Your task to perform on an android device: toggle airplane mode Image 0: 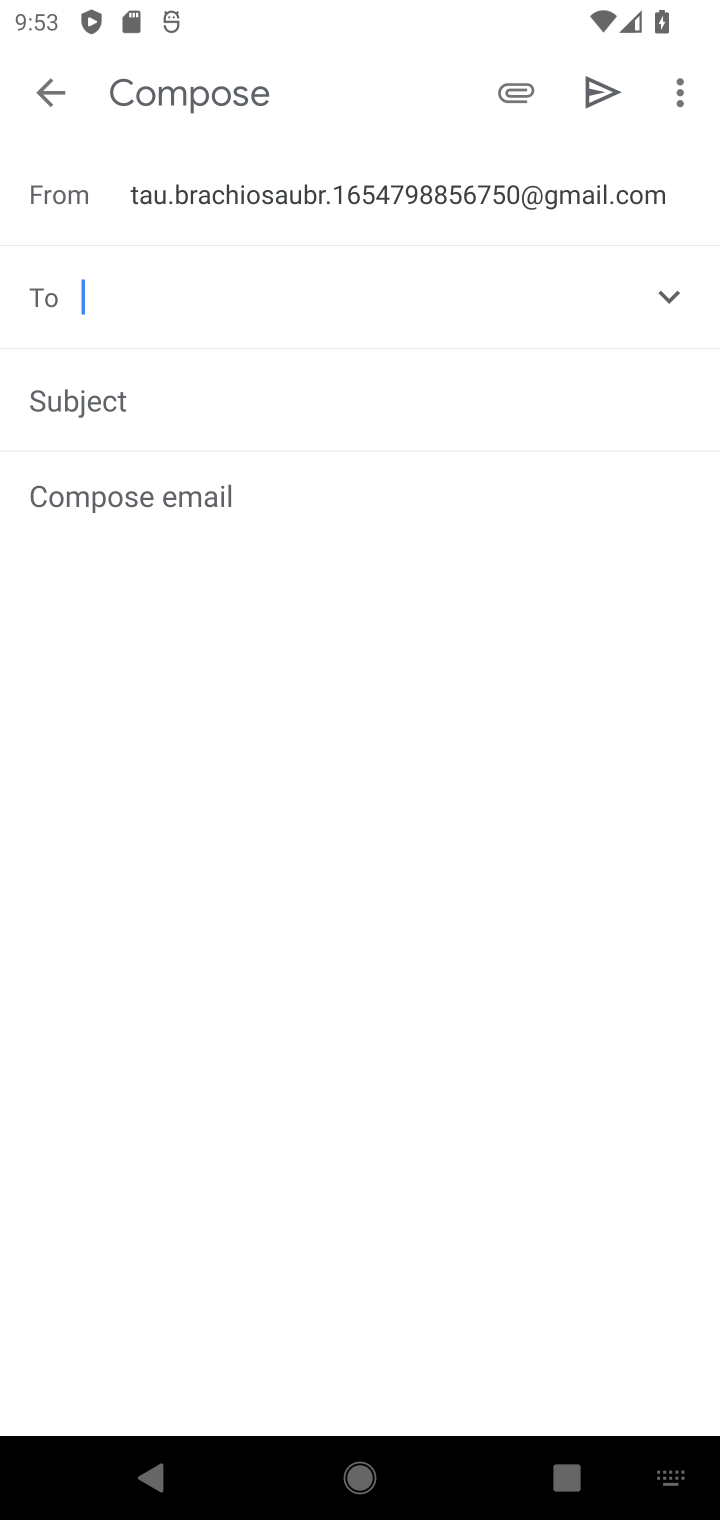
Step 0: press home button
Your task to perform on an android device: toggle airplane mode Image 1: 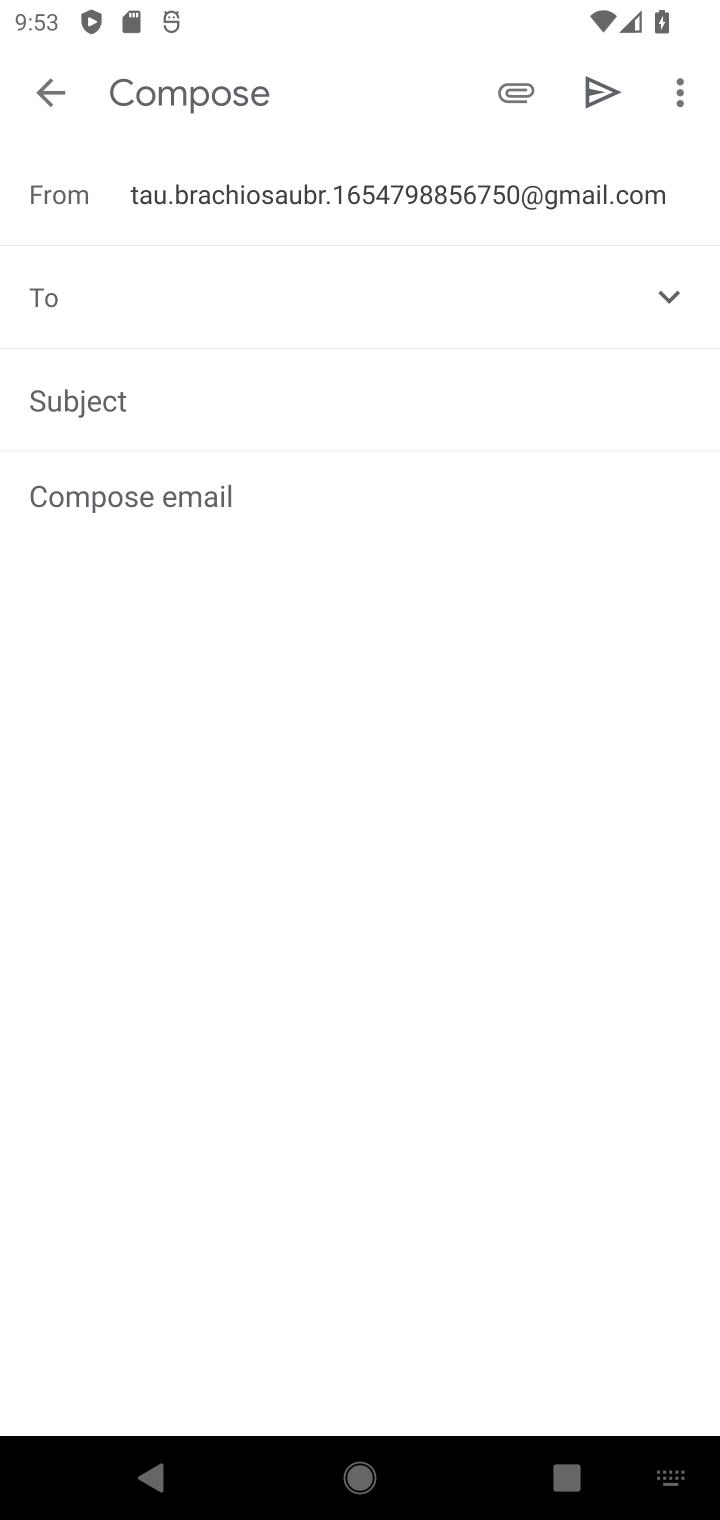
Step 1: press home button
Your task to perform on an android device: toggle airplane mode Image 2: 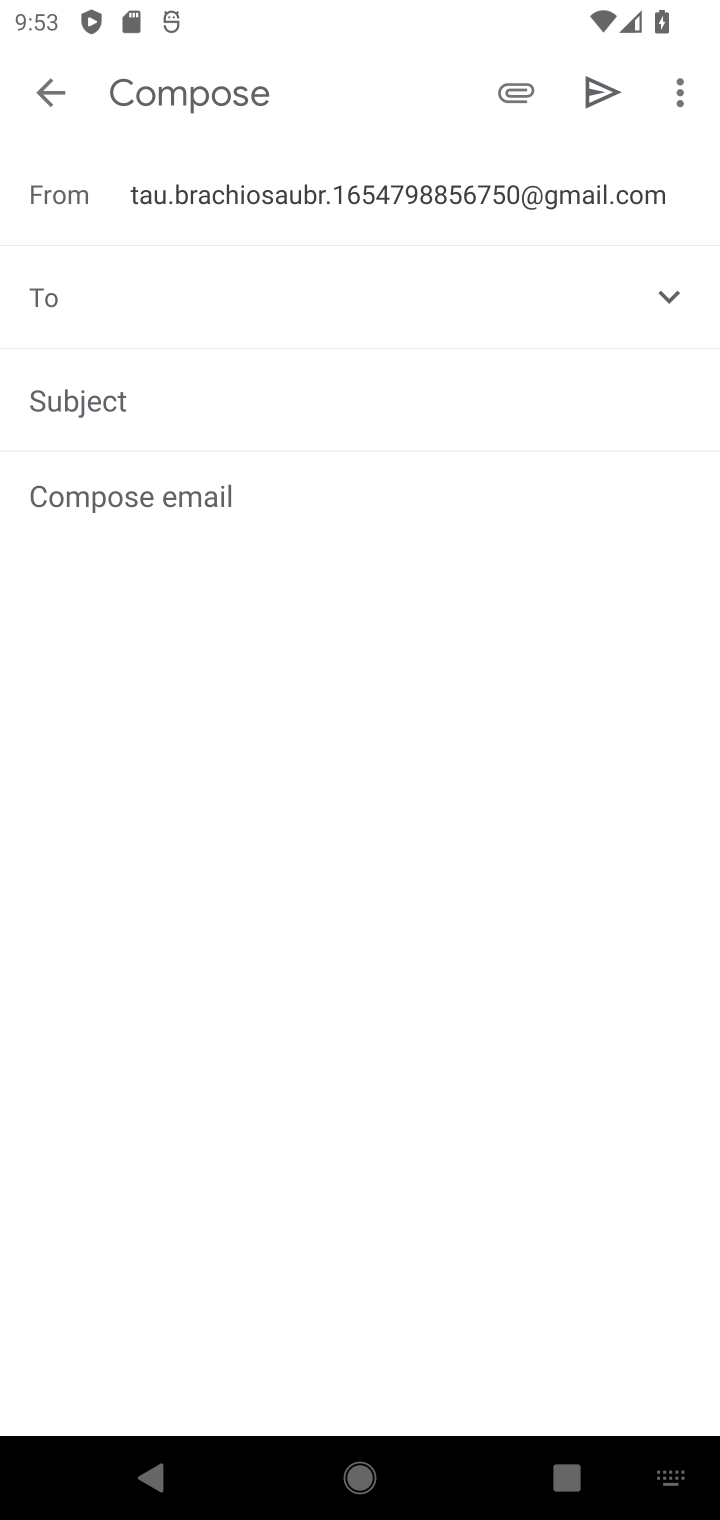
Step 2: click (536, 58)
Your task to perform on an android device: toggle airplane mode Image 3: 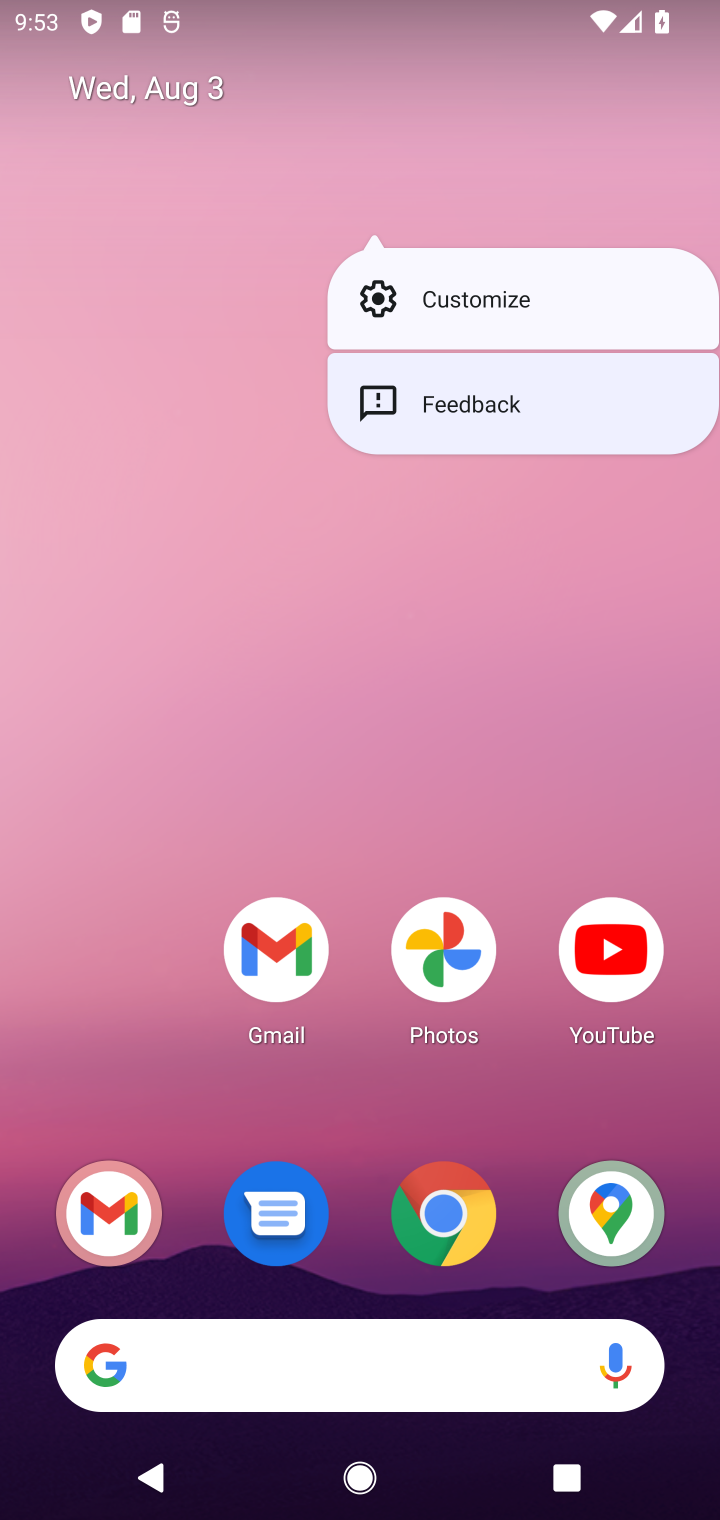
Step 3: drag from (432, 613) to (447, 472)
Your task to perform on an android device: toggle airplane mode Image 4: 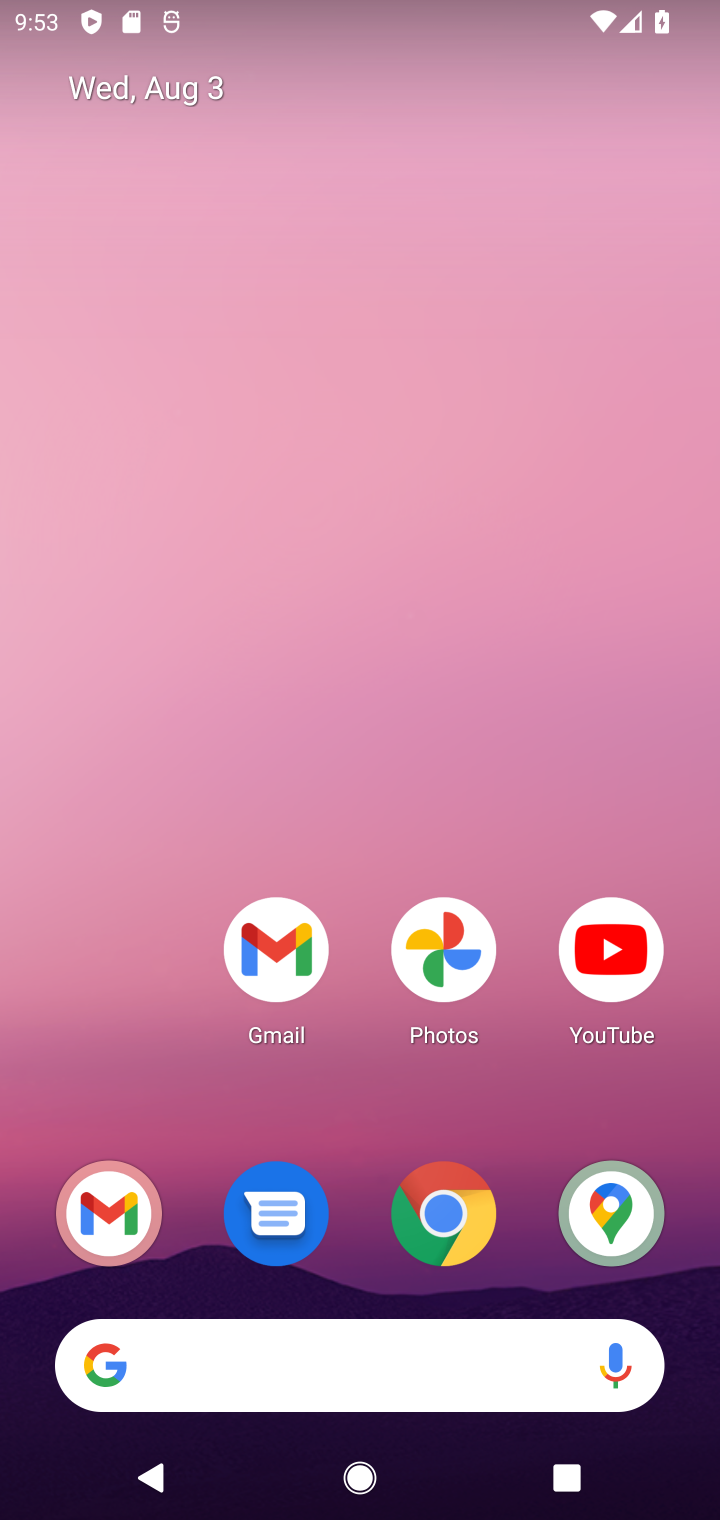
Step 4: drag from (382, 989) to (435, 577)
Your task to perform on an android device: toggle airplane mode Image 5: 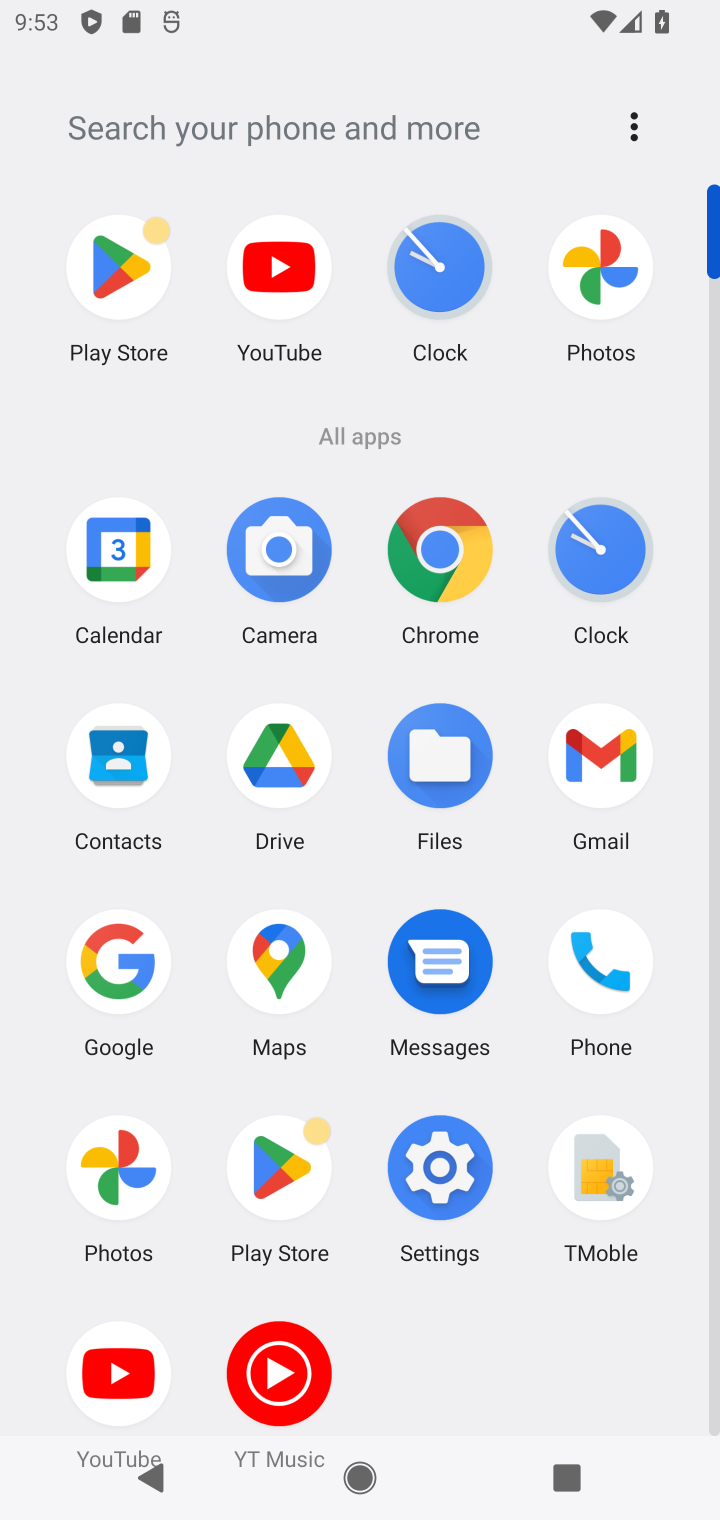
Step 5: click (441, 1185)
Your task to perform on an android device: toggle airplane mode Image 6: 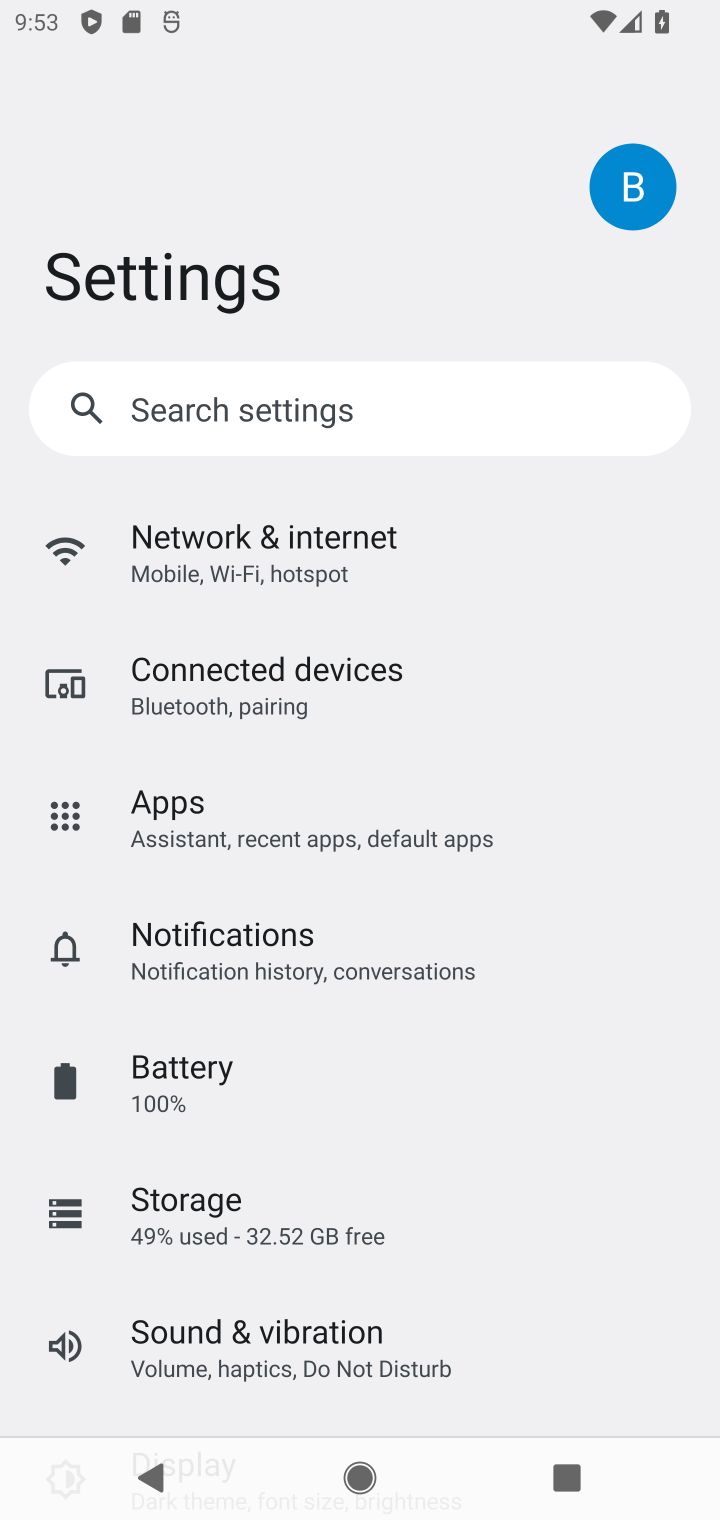
Step 6: click (335, 591)
Your task to perform on an android device: toggle airplane mode Image 7: 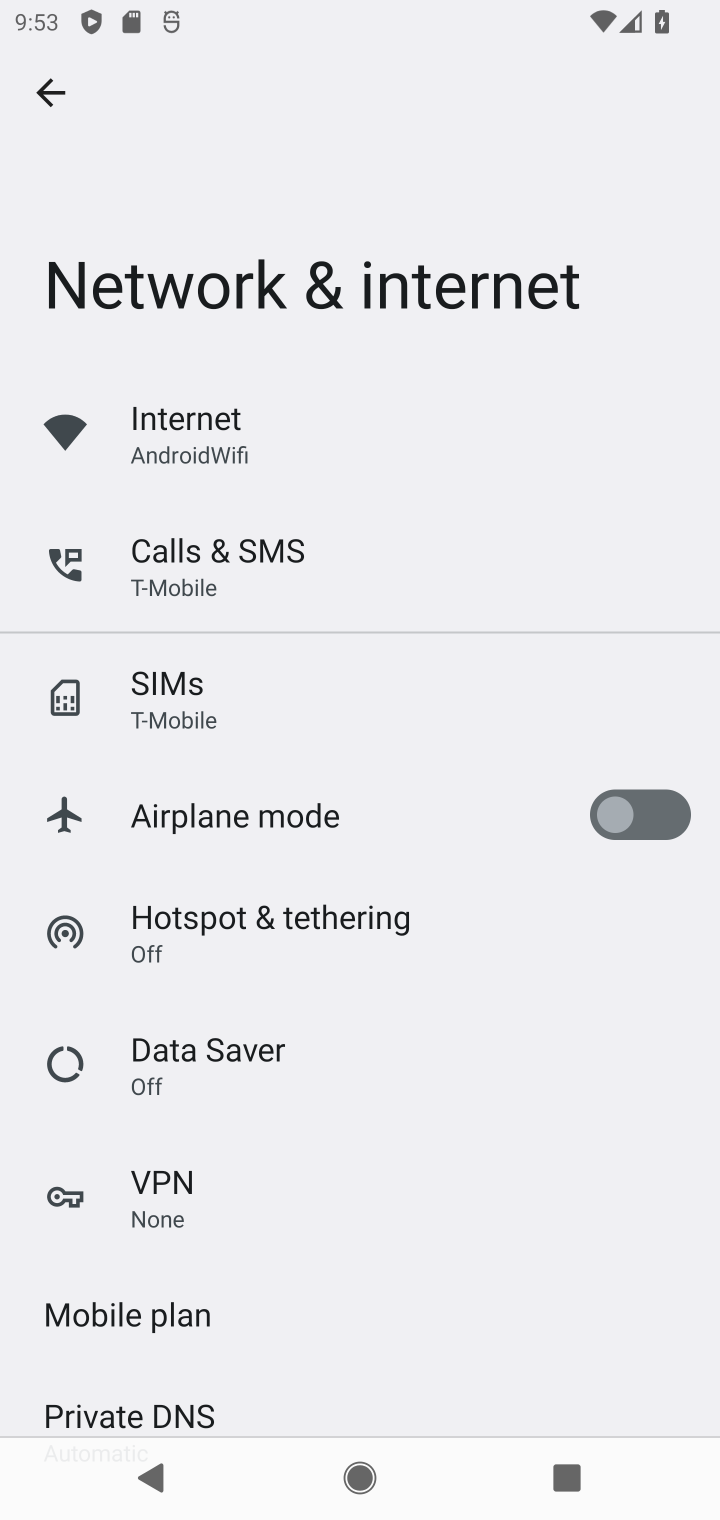
Step 7: drag from (208, 1118) to (333, 677)
Your task to perform on an android device: toggle airplane mode Image 8: 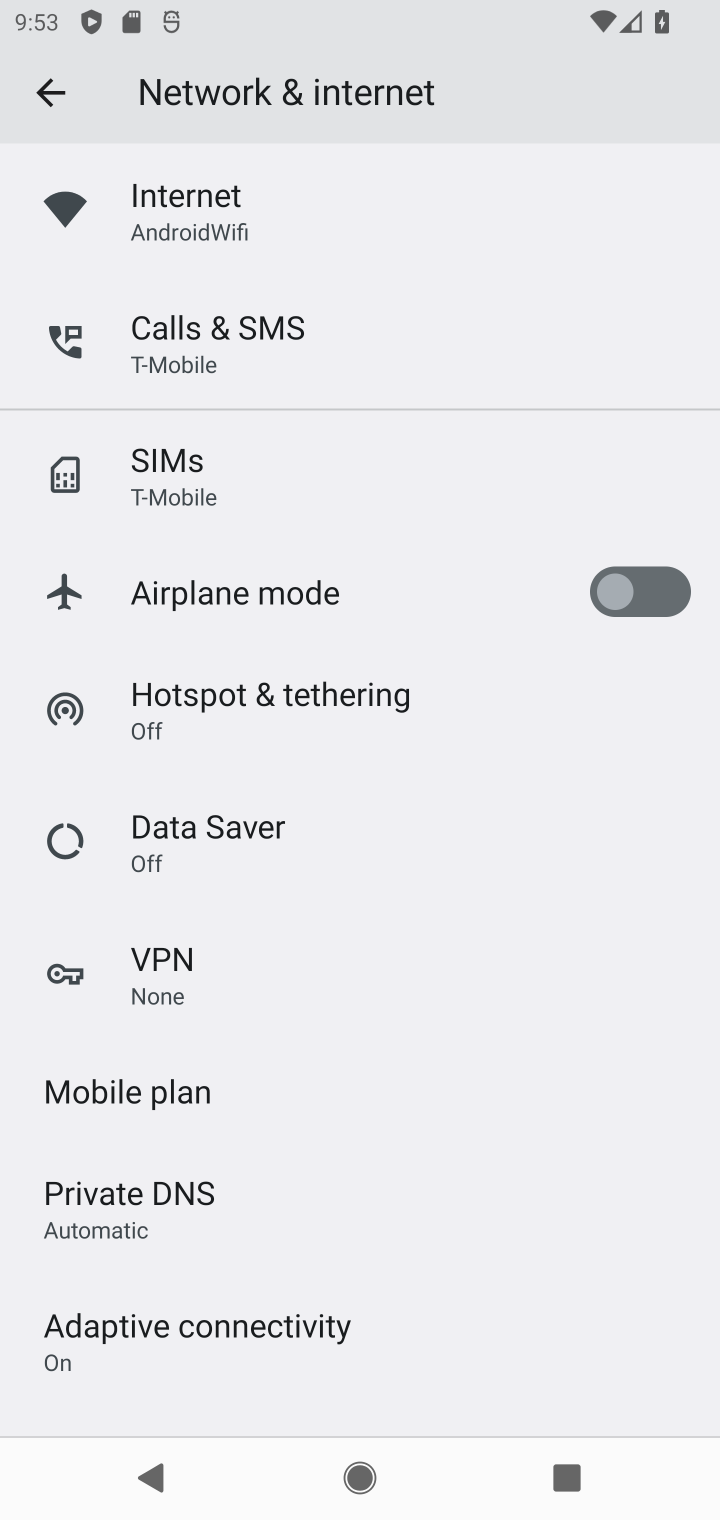
Step 8: click (515, 206)
Your task to perform on an android device: toggle airplane mode Image 9: 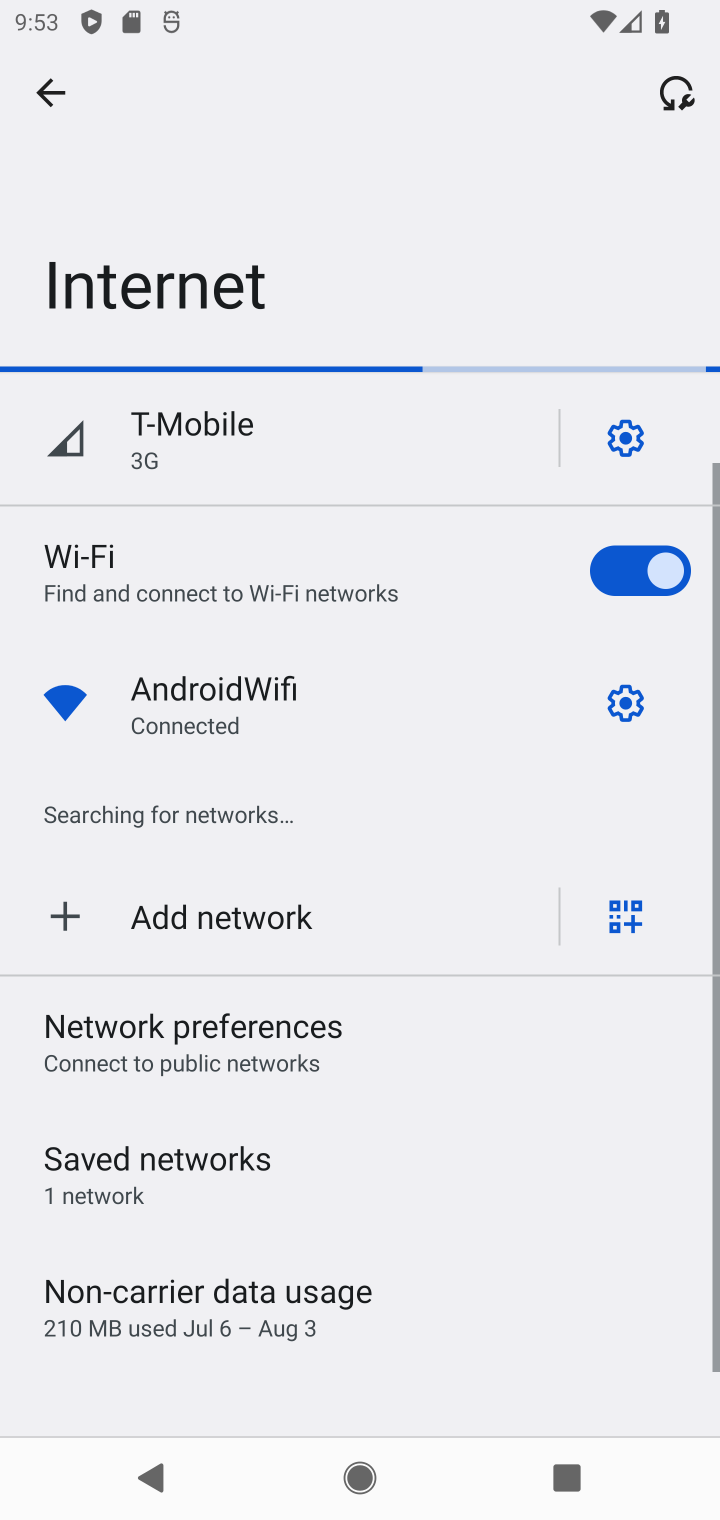
Step 9: drag from (287, 1083) to (661, 280)
Your task to perform on an android device: toggle airplane mode Image 10: 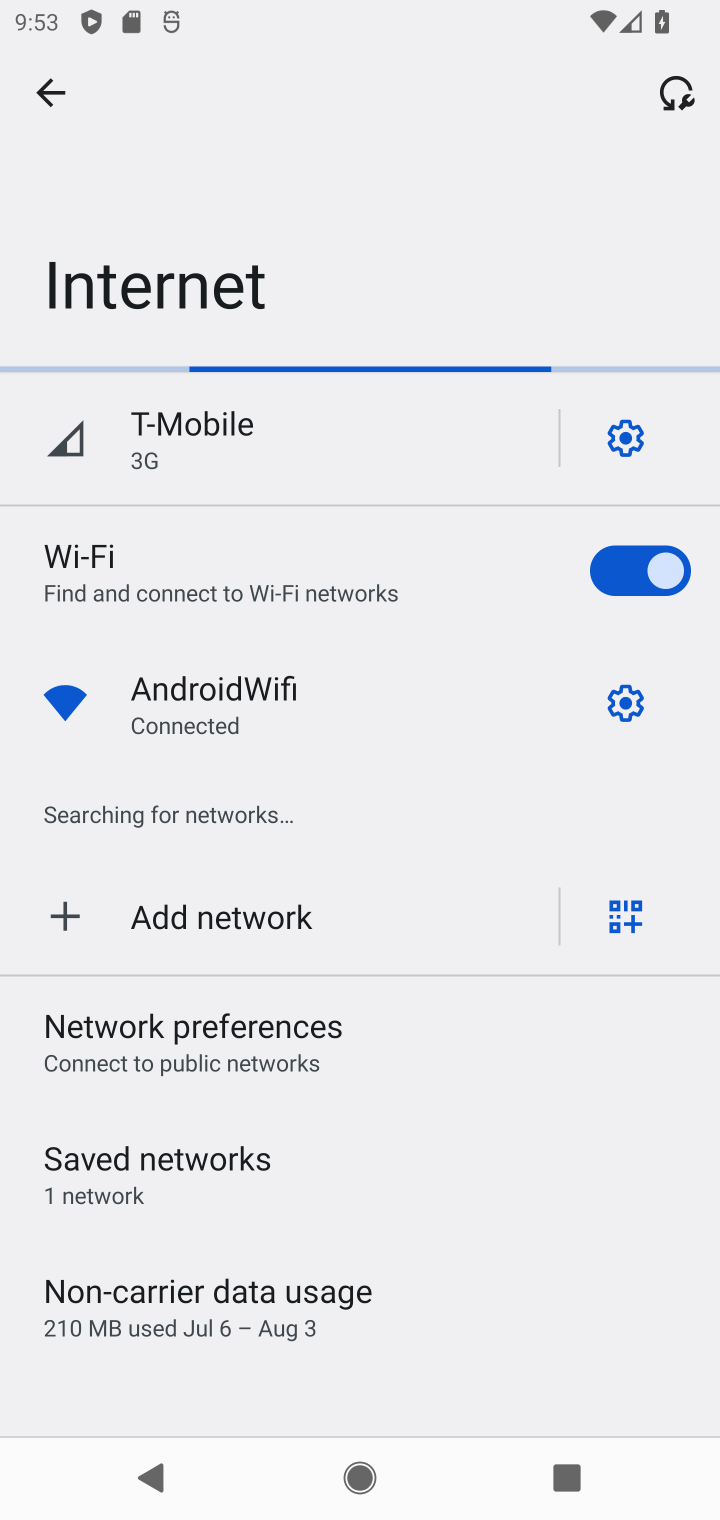
Step 10: click (48, 88)
Your task to perform on an android device: toggle airplane mode Image 11: 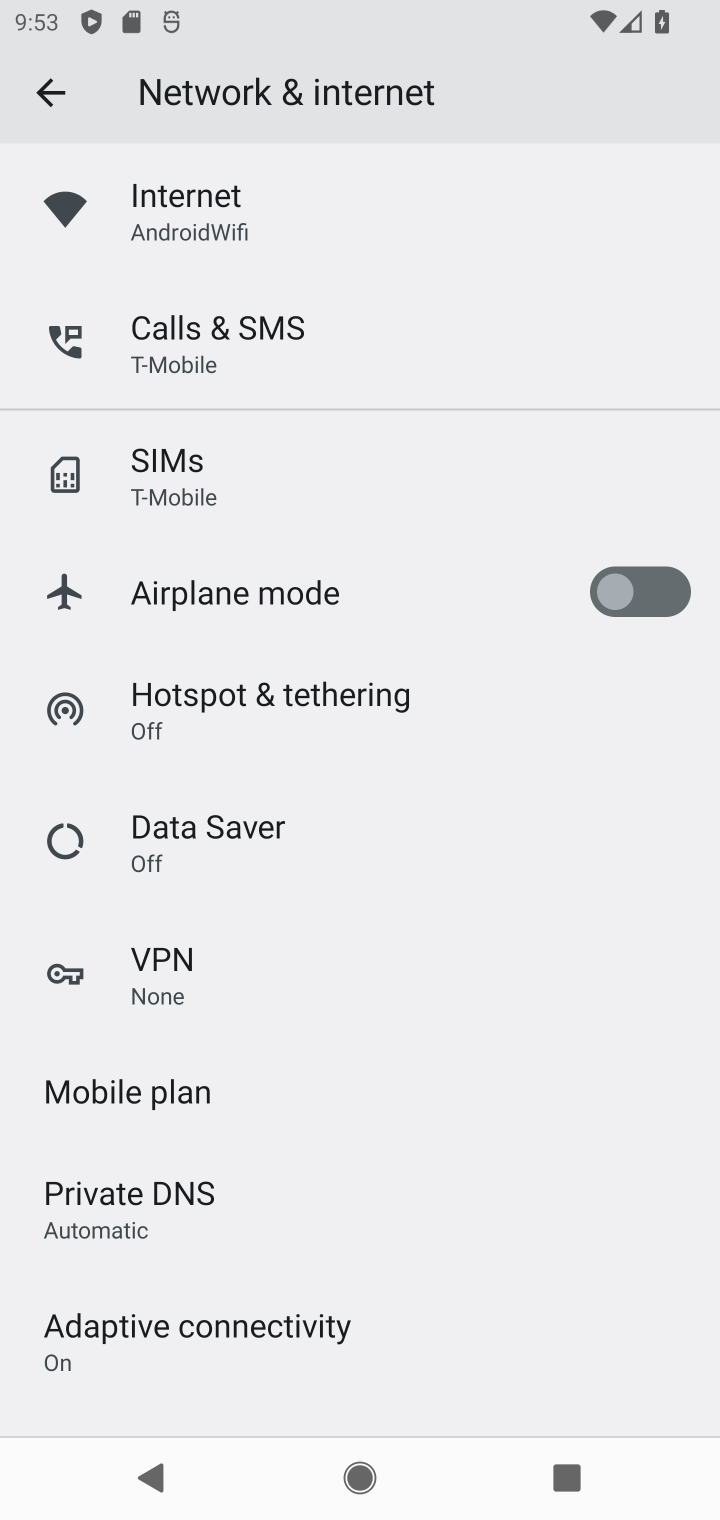
Step 11: click (547, 597)
Your task to perform on an android device: toggle airplane mode Image 12: 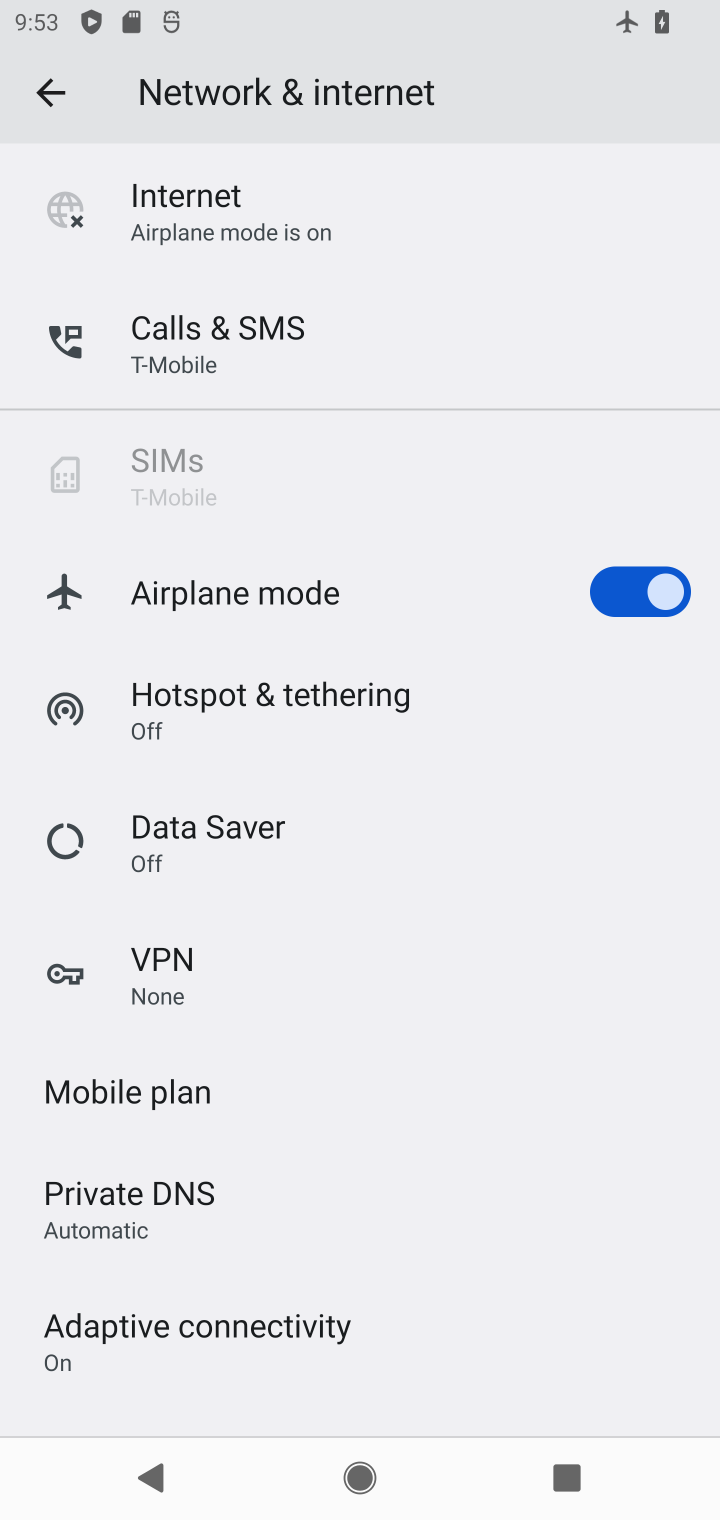
Step 12: task complete